Your task to perform on an android device: turn notification dots on Image 0: 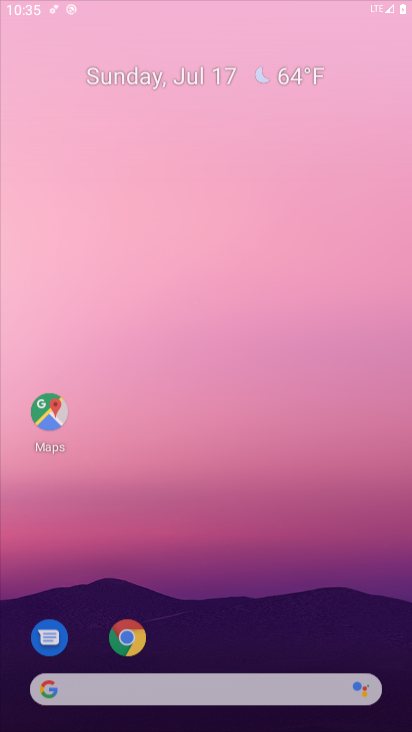
Step 0: press home button
Your task to perform on an android device: turn notification dots on Image 1: 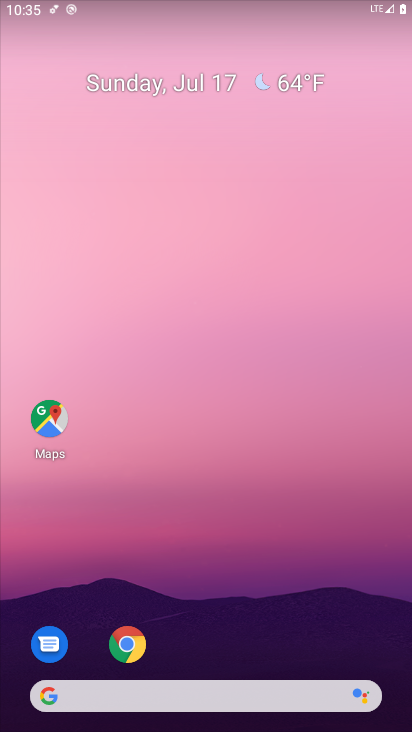
Step 1: drag from (244, 626) to (316, 17)
Your task to perform on an android device: turn notification dots on Image 2: 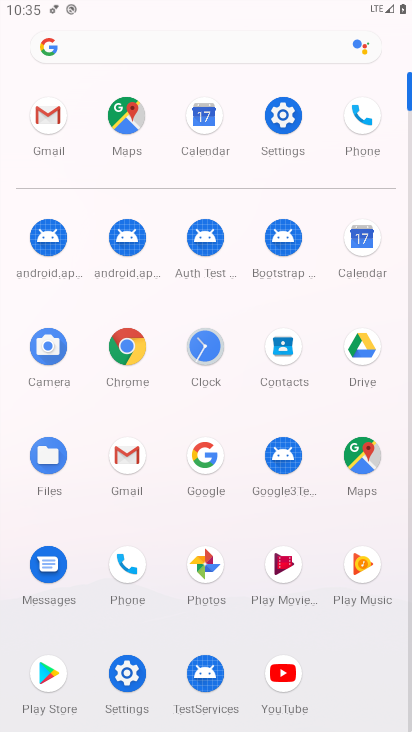
Step 2: click (281, 115)
Your task to perform on an android device: turn notification dots on Image 3: 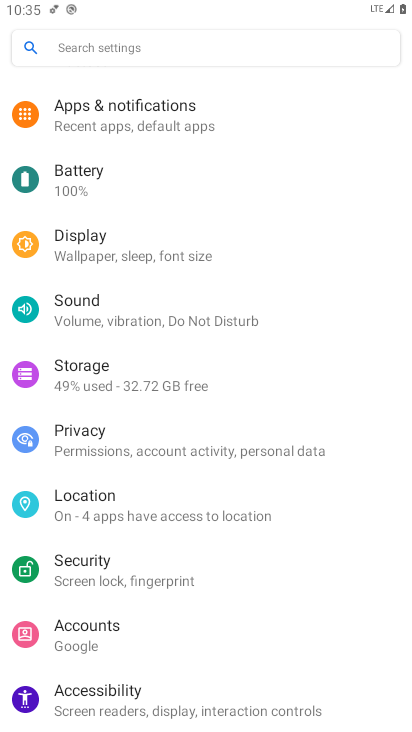
Step 3: click (130, 118)
Your task to perform on an android device: turn notification dots on Image 4: 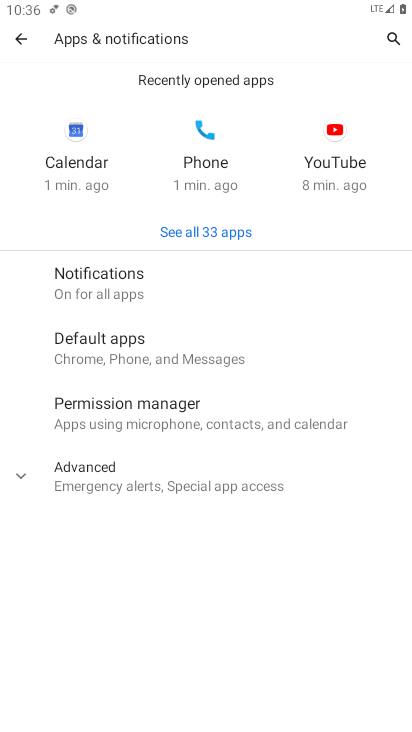
Step 4: click (77, 296)
Your task to perform on an android device: turn notification dots on Image 5: 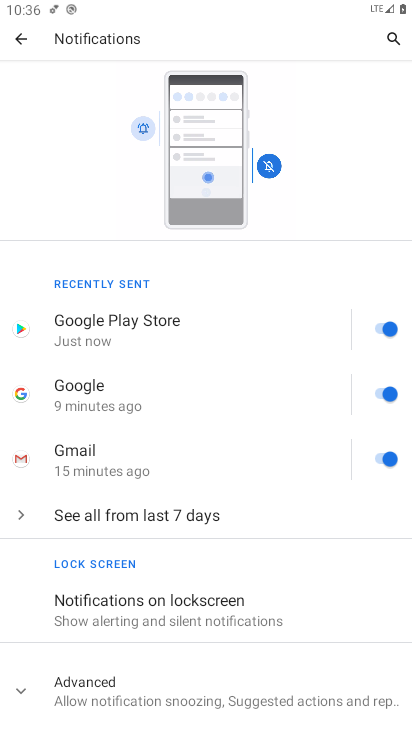
Step 5: click (29, 691)
Your task to perform on an android device: turn notification dots on Image 6: 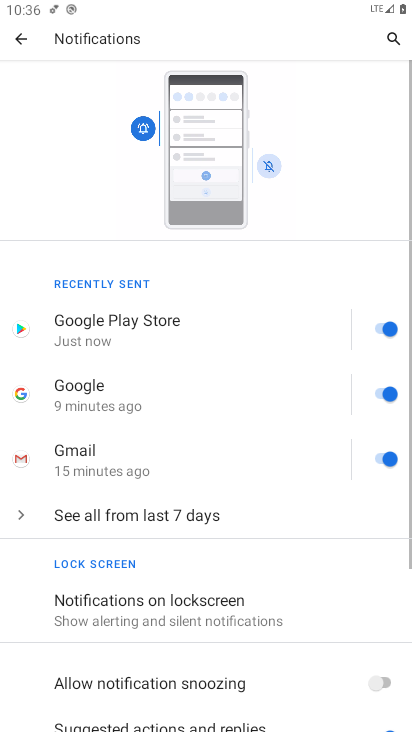
Step 6: drag from (288, 567) to (250, 145)
Your task to perform on an android device: turn notification dots on Image 7: 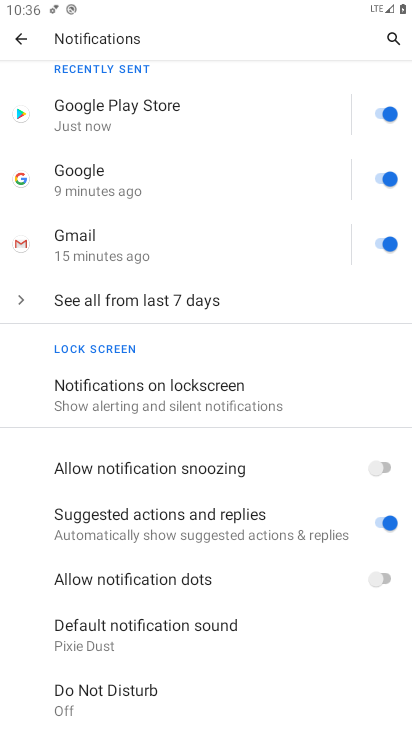
Step 7: drag from (291, 418) to (251, 107)
Your task to perform on an android device: turn notification dots on Image 8: 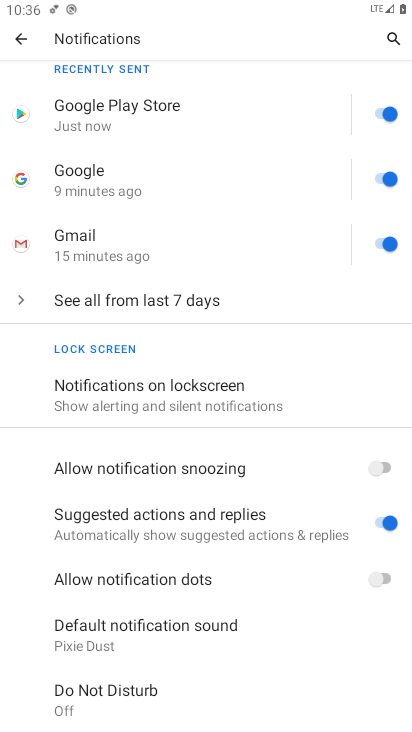
Step 8: drag from (302, 631) to (271, 216)
Your task to perform on an android device: turn notification dots on Image 9: 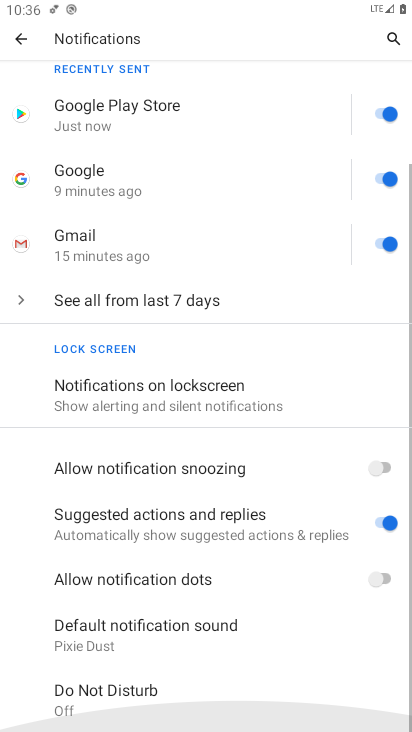
Step 9: drag from (232, 214) to (260, 697)
Your task to perform on an android device: turn notification dots on Image 10: 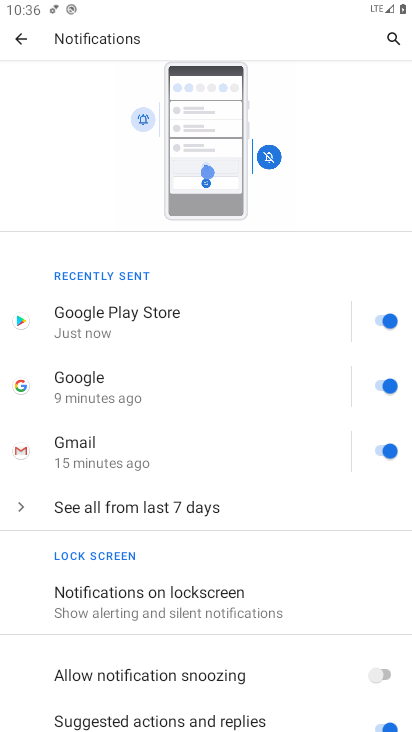
Step 10: drag from (275, 641) to (245, 151)
Your task to perform on an android device: turn notification dots on Image 11: 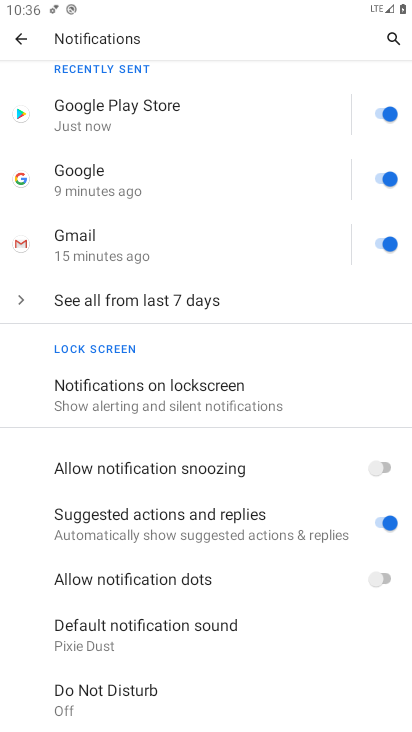
Step 11: click (385, 575)
Your task to perform on an android device: turn notification dots on Image 12: 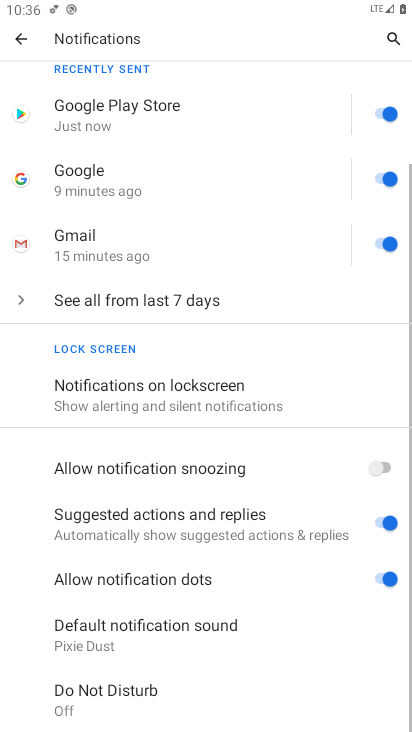
Step 12: task complete